Your task to perform on an android device: turn on notifications settings in the gmail app Image 0: 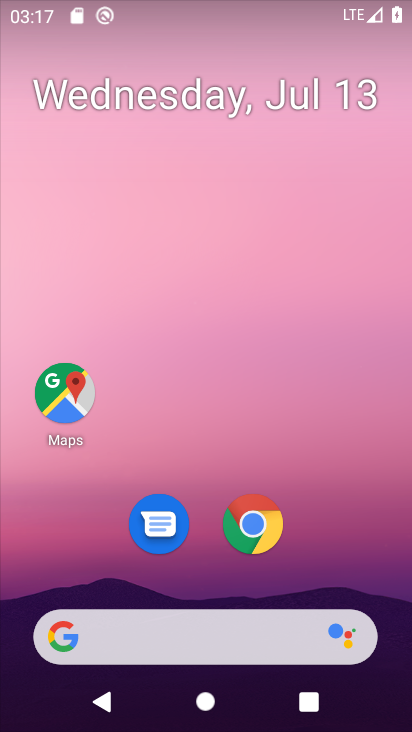
Step 0: drag from (319, 544) to (279, 4)
Your task to perform on an android device: turn on notifications settings in the gmail app Image 1: 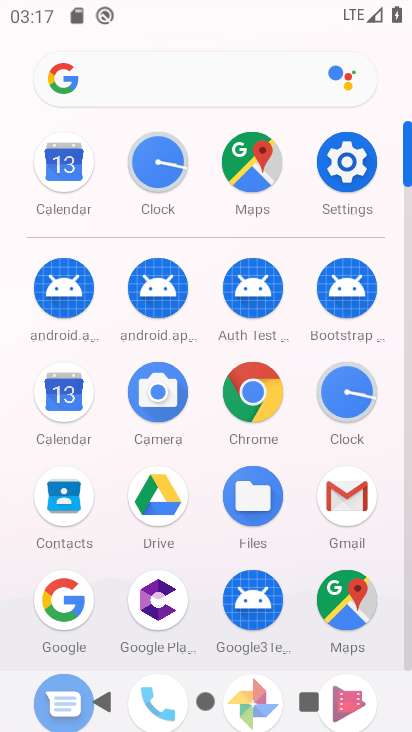
Step 1: click (349, 495)
Your task to perform on an android device: turn on notifications settings in the gmail app Image 2: 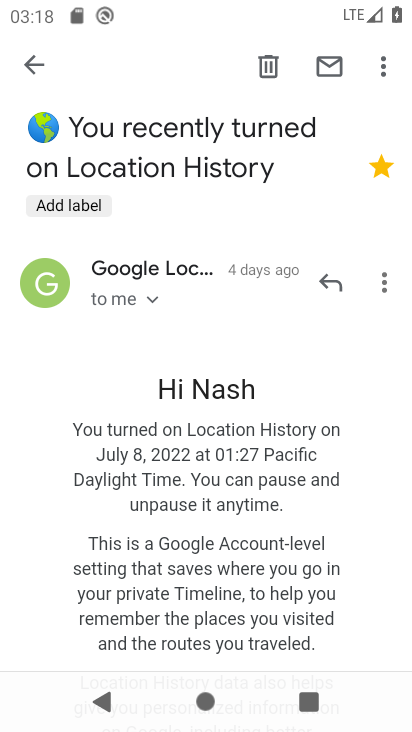
Step 2: click (29, 60)
Your task to perform on an android device: turn on notifications settings in the gmail app Image 3: 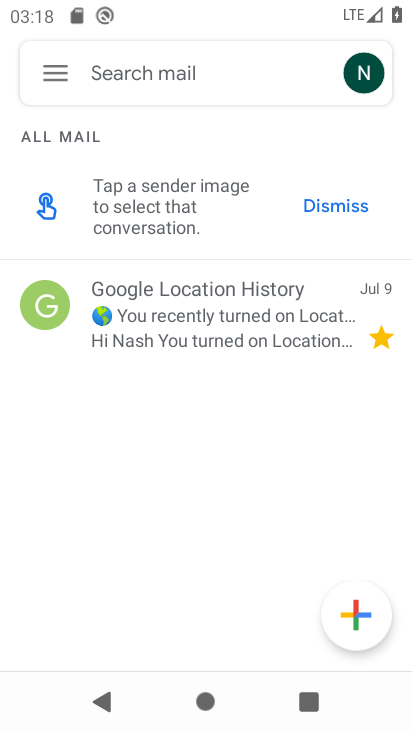
Step 3: click (54, 67)
Your task to perform on an android device: turn on notifications settings in the gmail app Image 4: 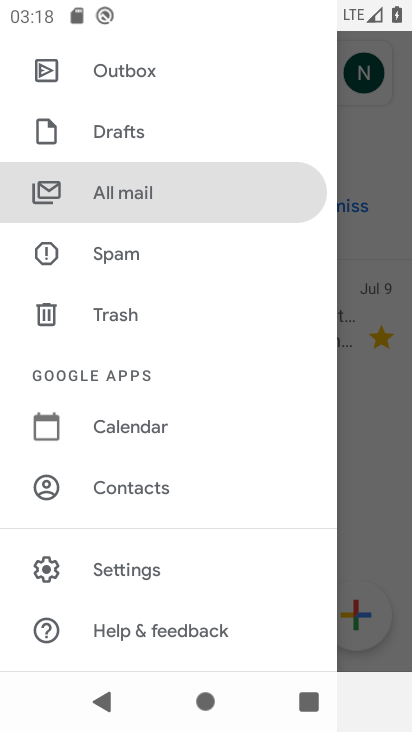
Step 4: click (141, 569)
Your task to perform on an android device: turn on notifications settings in the gmail app Image 5: 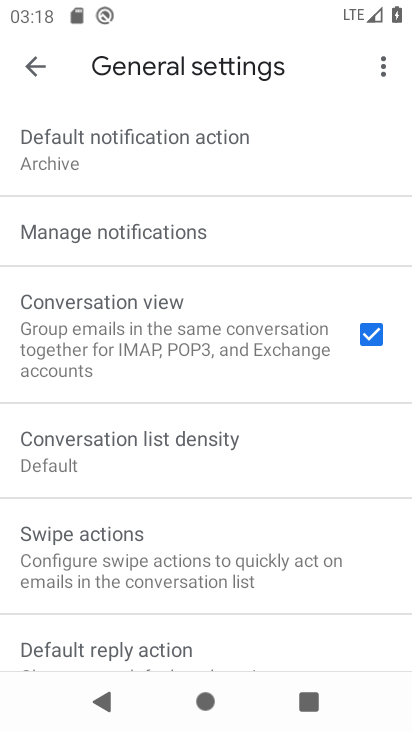
Step 5: click (199, 238)
Your task to perform on an android device: turn on notifications settings in the gmail app Image 6: 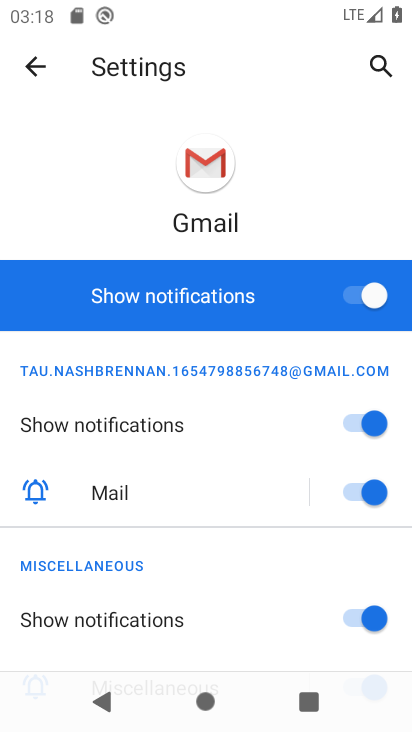
Step 6: task complete